Your task to perform on an android device: Open CNN.com Image 0: 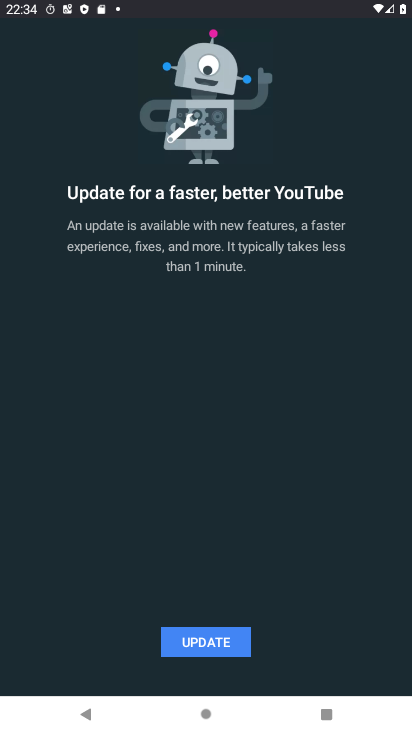
Step 0: press home button
Your task to perform on an android device: Open CNN.com Image 1: 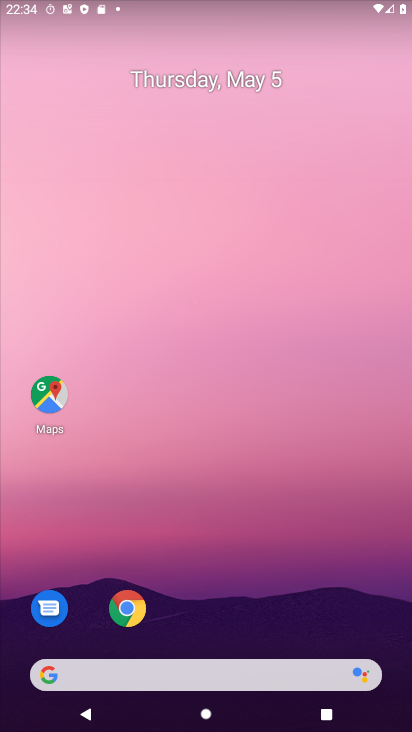
Step 1: drag from (337, 657) to (394, 216)
Your task to perform on an android device: Open CNN.com Image 2: 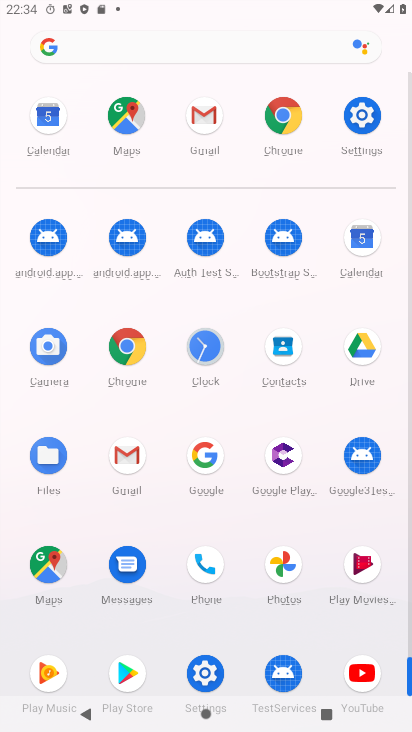
Step 2: click (117, 359)
Your task to perform on an android device: Open CNN.com Image 3: 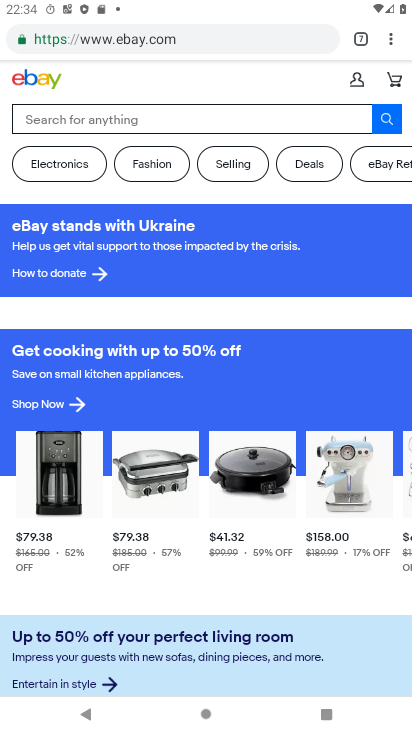
Step 3: click (226, 46)
Your task to perform on an android device: Open CNN.com Image 4: 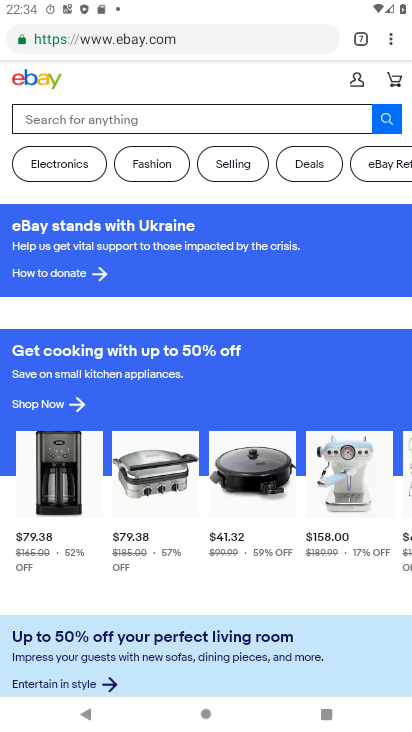
Step 4: click (219, 29)
Your task to perform on an android device: Open CNN.com Image 5: 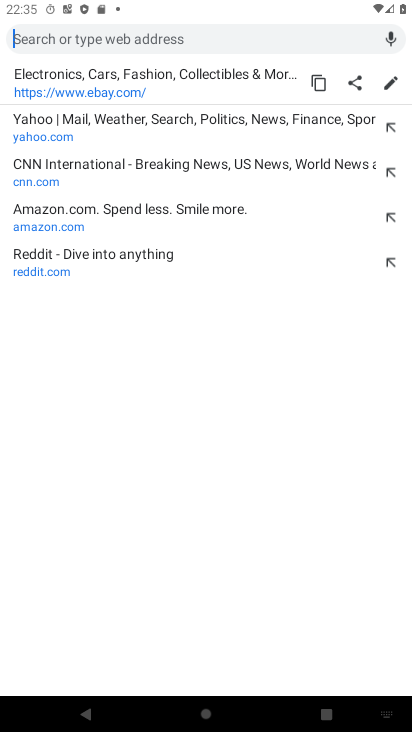
Step 5: type "cnn.com"
Your task to perform on an android device: Open CNN.com Image 6: 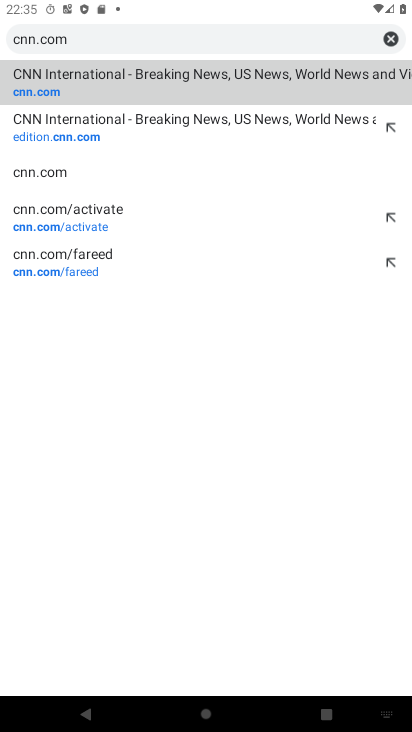
Step 6: click (314, 80)
Your task to perform on an android device: Open CNN.com Image 7: 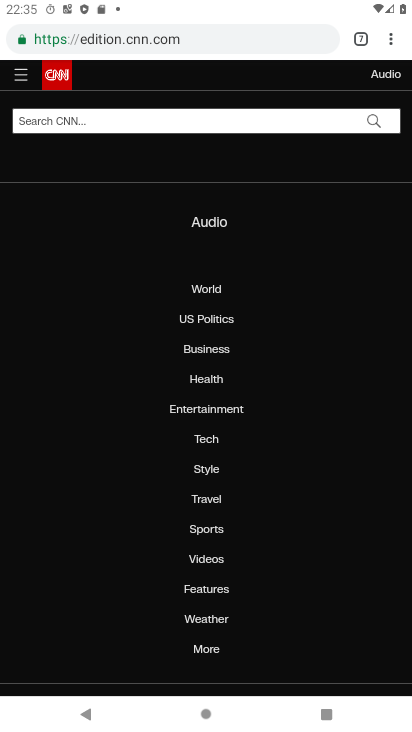
Step 7: task complete